Your task to perform on an android device: toggle notification dots Image 0: 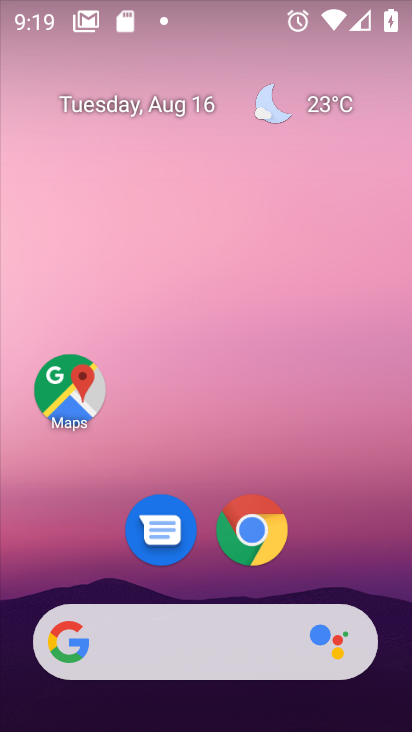
Step 0: drag from (363, 544) to (300, 118)
Your task to perform on an android device: toggle notification dots Image 1: 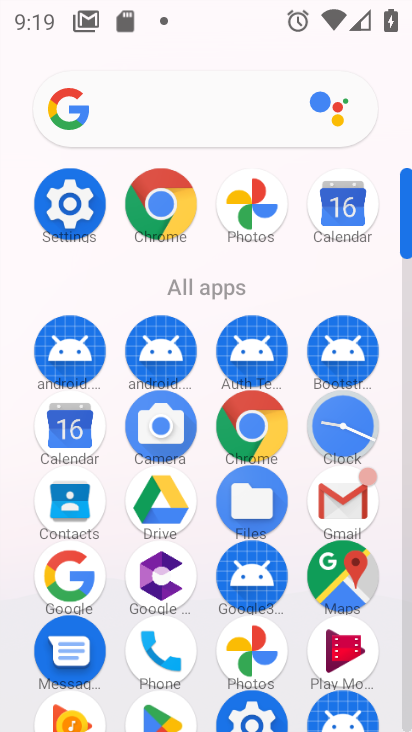
Step 1: click (267, 722)
Your task to perform on an android device: toggle notification dots Image 2: 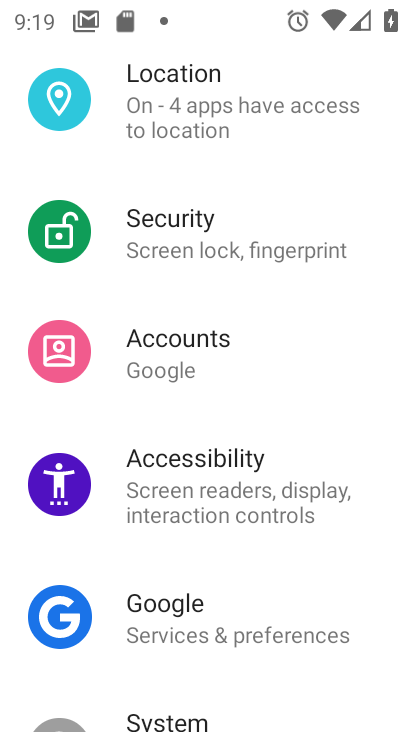
Step 2: drag from (259, 189) to (225, 681)
Your task to perform on an android device: toggle notification dots Image 3: 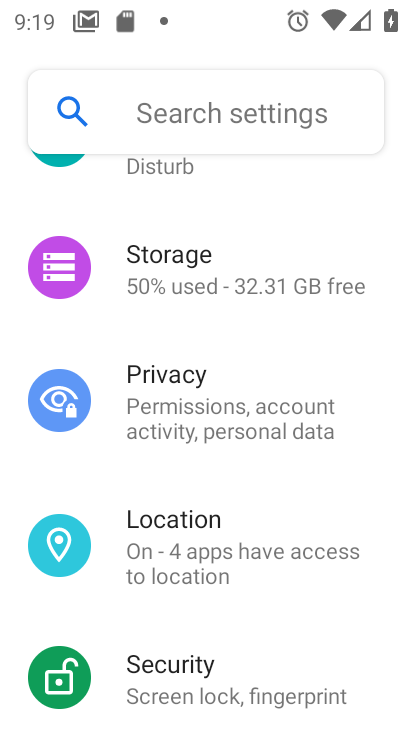
Step 3: drag from (247, 211) to (213, 666)
Your task to perform on an android device: toggle notification dots Image 4: 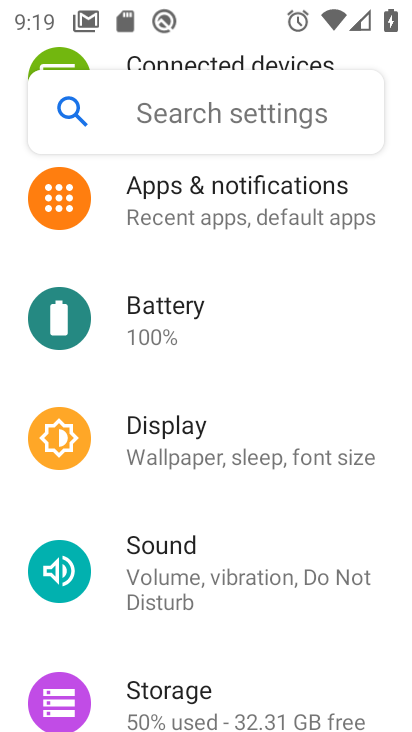
Step 4: drag from (265, 318) to (194, 639)
Your task to perform on an android device: toggle notification dots Image 5: 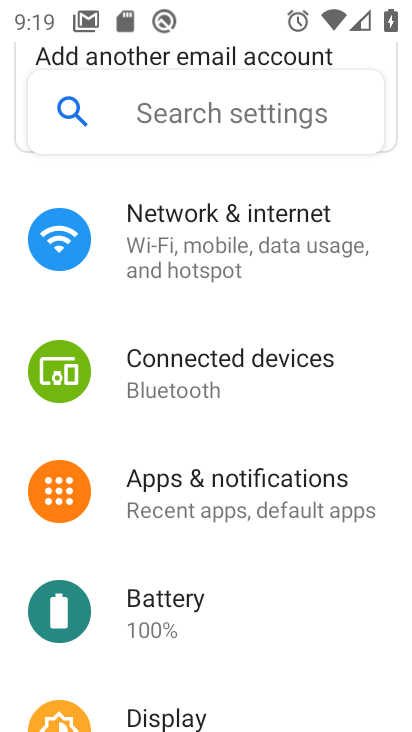
Step 5: click (263, 501)
Your task to perform on an android device: toggle notification dots Image 6: 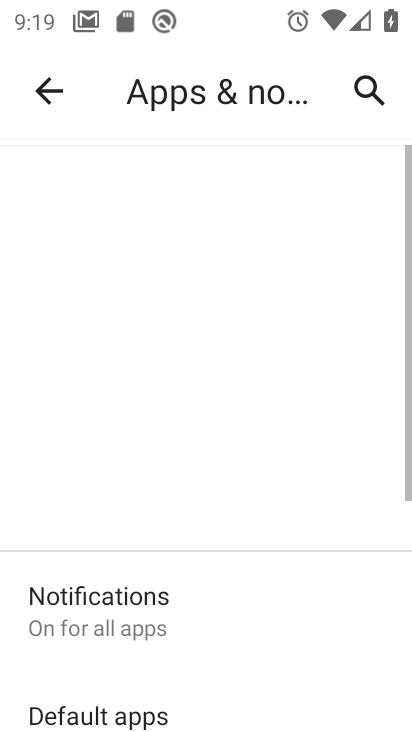
Step 6: drag from (234, 626) to (296, 93)
Your task to perform on an android device: toggle notification dots Image 7: 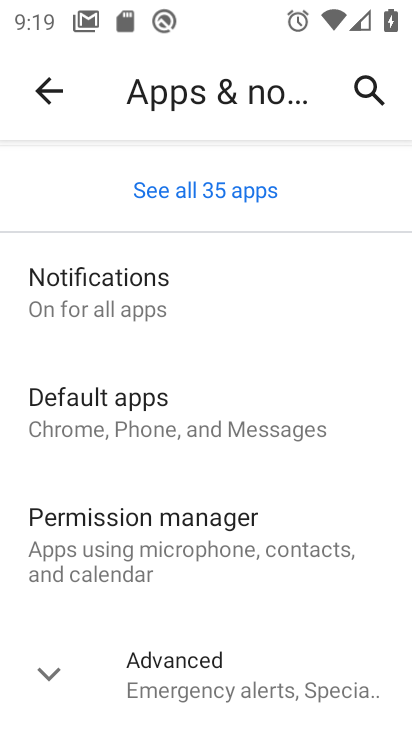
Step 7: click (147, 279)
Your task to perform on an android device: toggle notification dots Image 8: 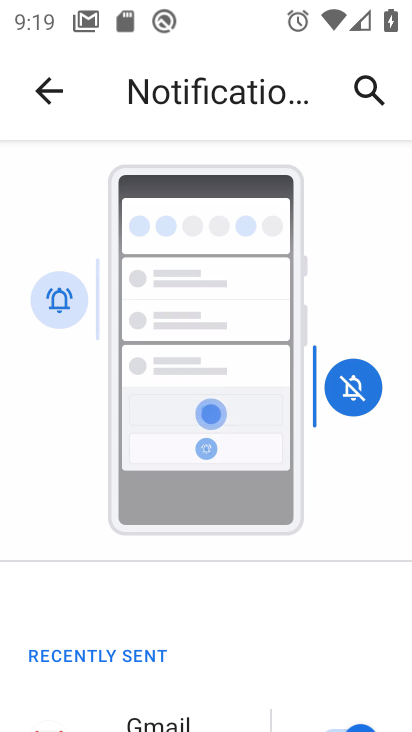
Step 8: drag from (255, 651) to (241, 108)
Your task to perform on an android device: toggle notification dots Image 9: 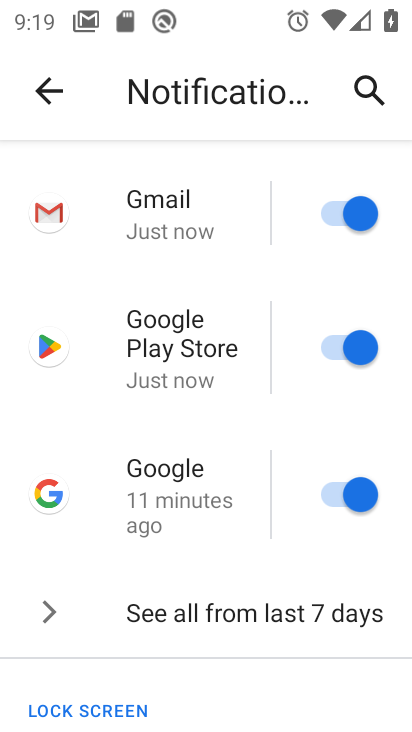
Step 9: drag from (225, 717) to (246, 209)
Your task to perform on an android device: toggle notification dots Image 10: 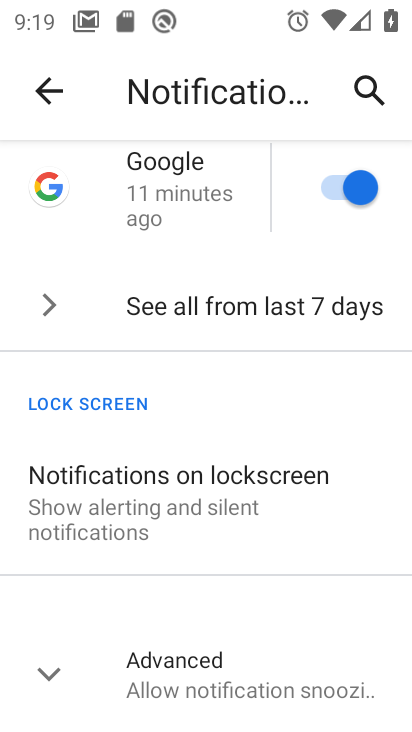
Step 10: click (177, 662)
Your task to perform on an android device: toggle notification dots Image 11: 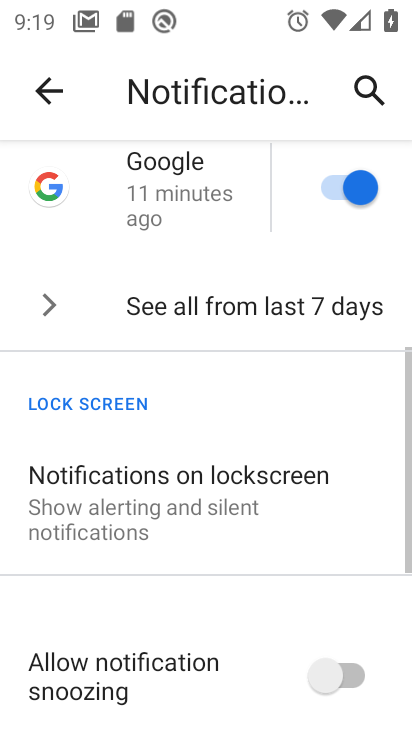
Step 11: drag from (320, 622) to (335, 90)
Your task to perform on an android device: toggle notification dots Image 12: 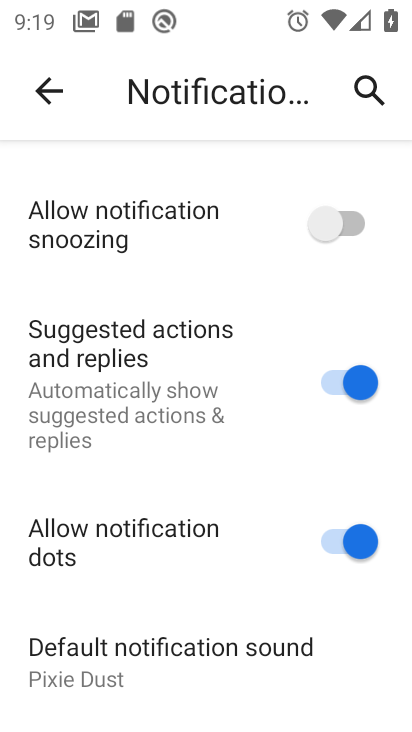
Step 12: click (358, 558)
Your task to perform on an android device: toggle notification dots Image 13: 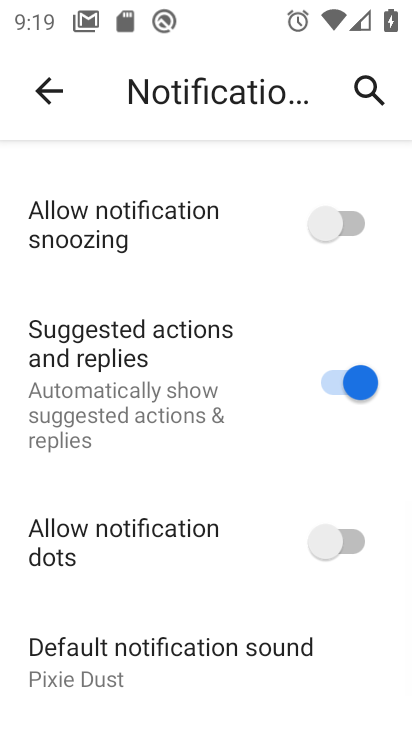
Step 13: task complete